Your task to perform on an android device: Turn off the flashlight Image 0: 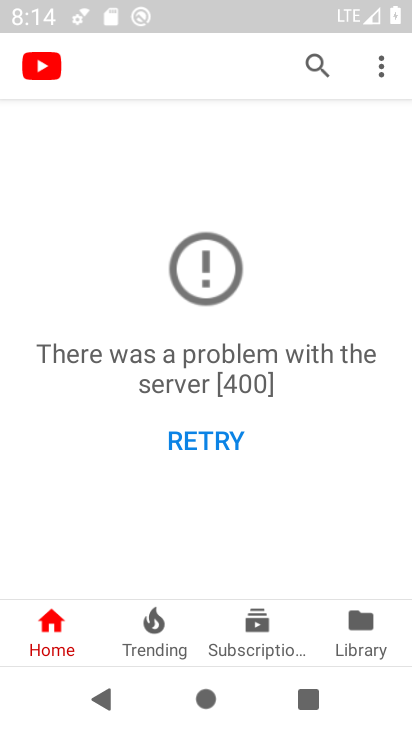
Step 0: drag from (245, 57) to (202, 646)
Your task to perform on an android device: Turn off the flashlight Image 1: 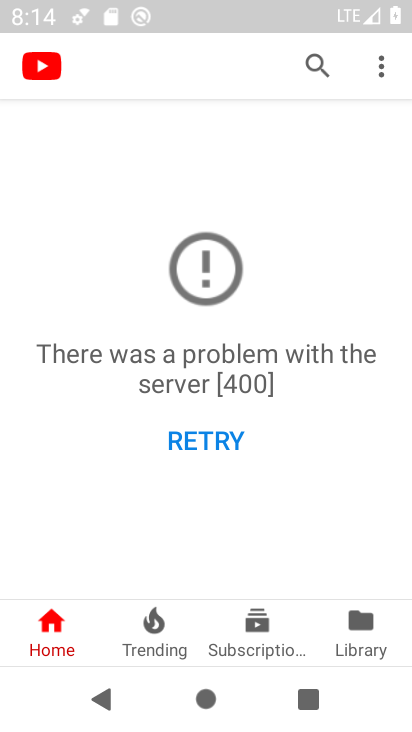
Step 1: task complete